Your task to perform on an android device: What's on my calendar tomorrow? Image 0: 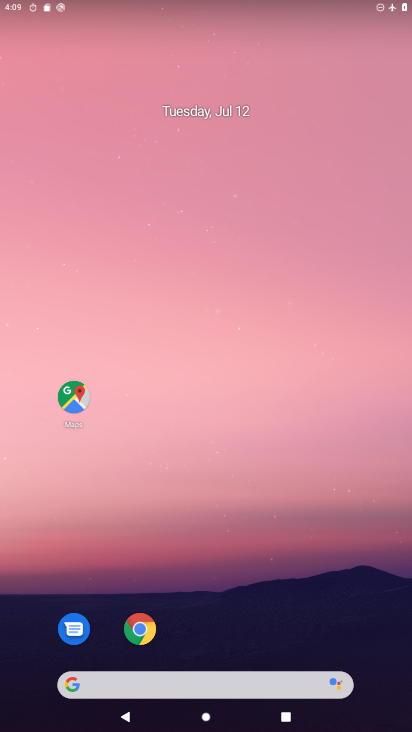
Step 0: drag from (378, 619) to (329, 128)
Your task to perform on an android device: What's on my calendar tomorrow? Image 1: 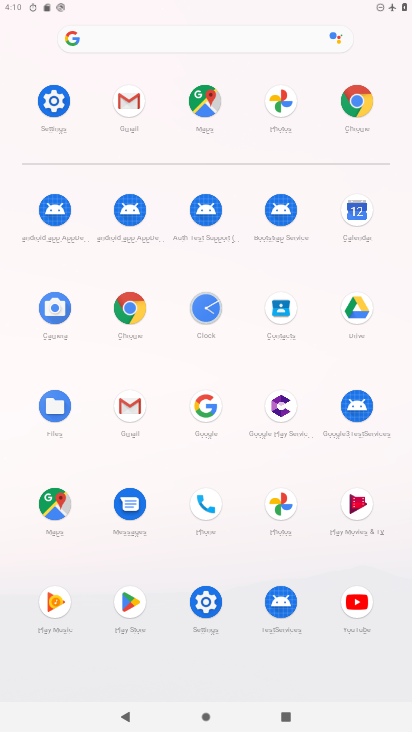
Step 1: click (350, 216)
Your task to perform on an android device: What's on my calendar tomorrow? Image 2: 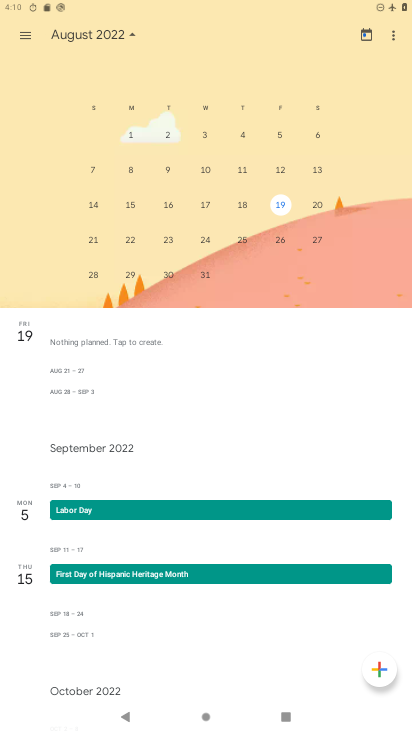
Step 2: drag from (28, 225) to (279, 236)
Your task to perform on an android device: What's on my calendar tomorrow? Image 3: 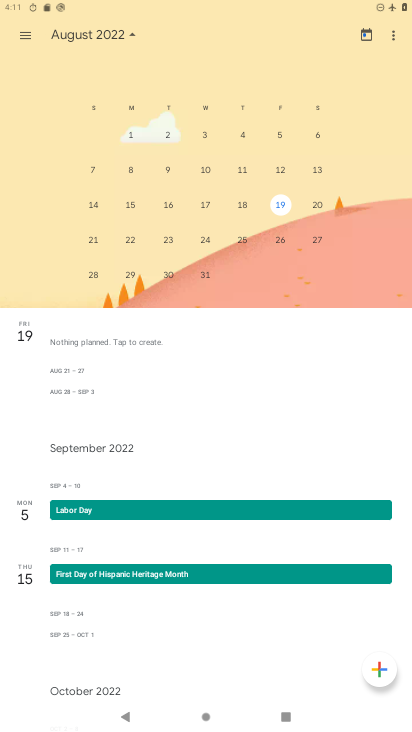
Step 3: drag from (49, 210) to (411, 221)
Your task to perform on an android device: What's on my calendar tomorrow? Image 4: 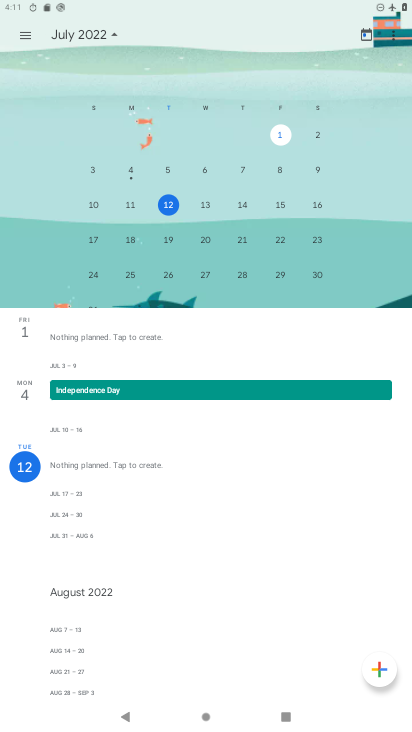
Step 4: click (211, 209)
Your task to perform on an android device: What's on my calendar tomorrow? Image 5: 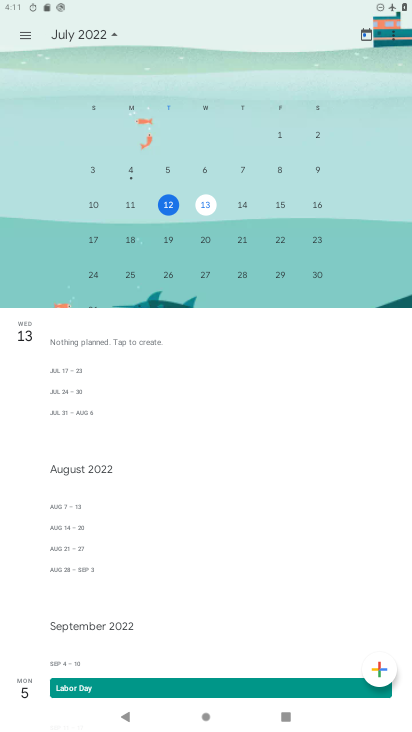
Step 5: task complete